Your task to perform on an android device: clear all cookies in the chrome app Image 0: 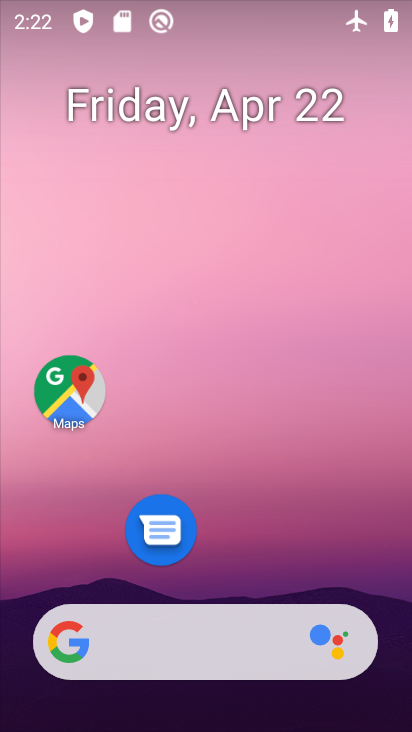
Step 0: drag from (262, 566) to (272, 8)
Your task to perform on an android device: clear all cookies in the chrome app Image 1: 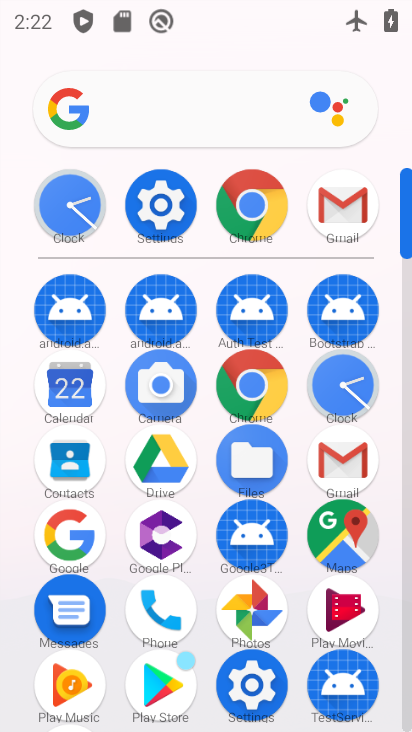
Step 1: click (259, 210)
Your task to perform on an android device: clear all cookies in the chrome app Image 2: 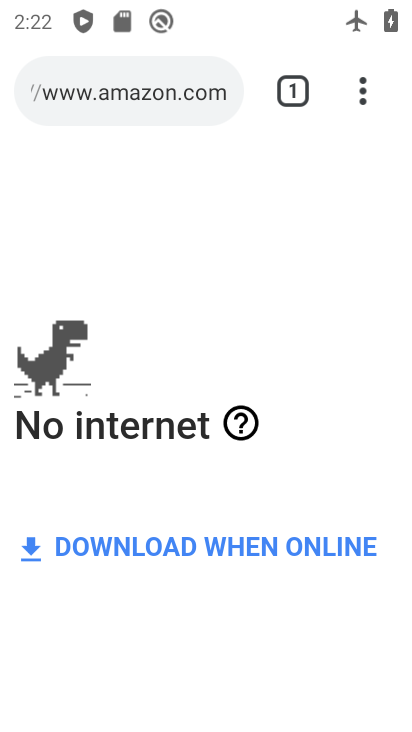
Step 2: click (360, 99)
Your task to perform on an android device: clear all cookies in the chrome app Image 3: 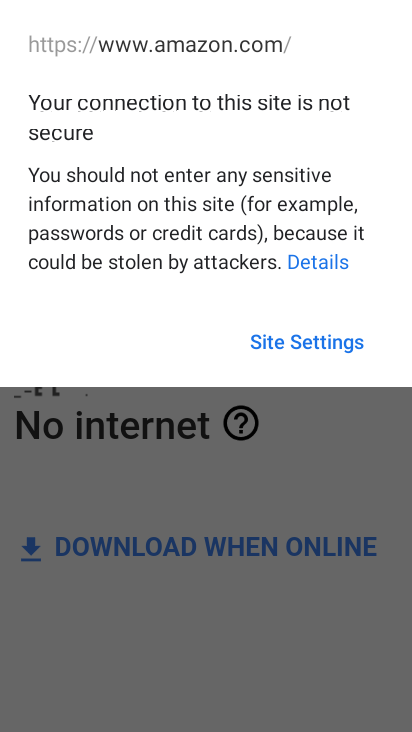
Step 3: click (355, 449)
Your task to perform on an android device: clear all cookies in the chrome app Image 4: 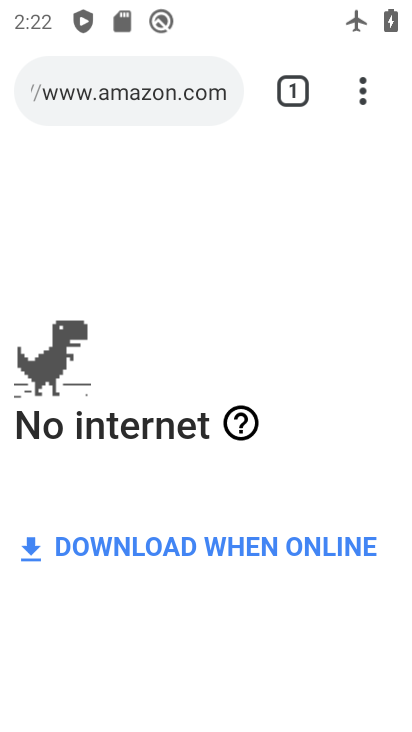
Step 4: click (360, 94)
Your task to perform on an android device: clear all cookies in the chrome app Image 5: 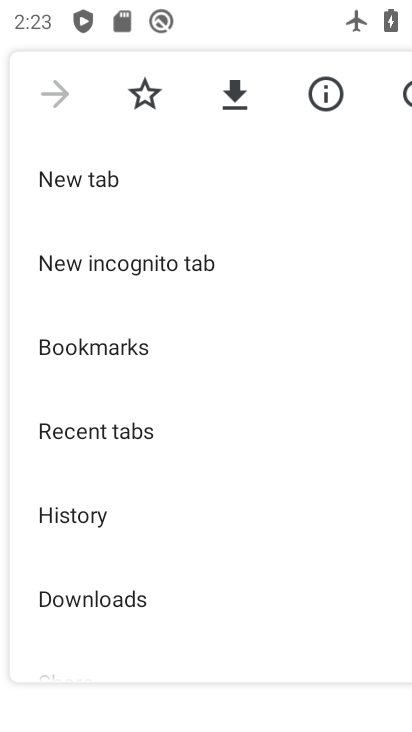
Step 5: drag from (164, 551) to (151, 351)
Your task to perform on an android device: clear all cookies in the chrome app Image 6: 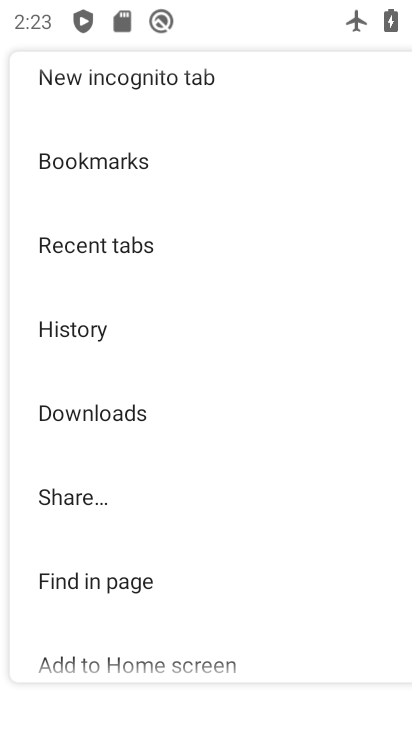
Step 6: drag from (117, 540) to (171, 206)
Your task to perform on an android device: clear all cookies in the chrome app Image 7: 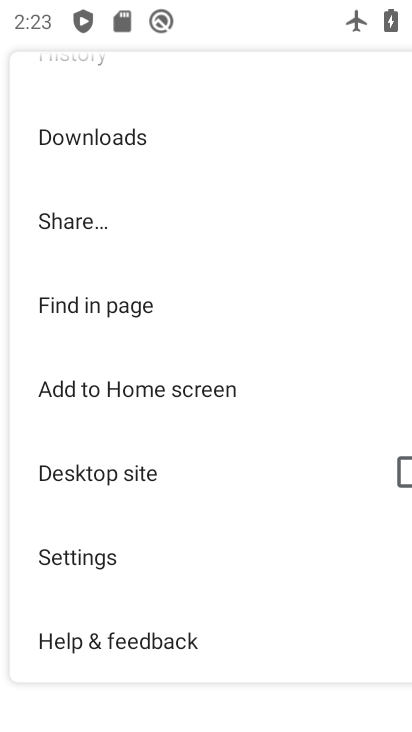
Step 7: click (69, 556)
Your task to perform on an android device: clear all cookies in the chrome app Image 8: 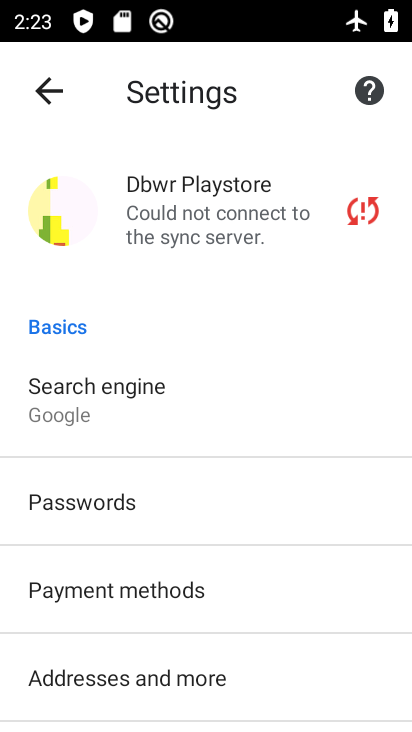
Step 8: drag from (188, 554) to (164, 234)
Your task to perform on an android device: clear all cookies in the chrome app Image 9: 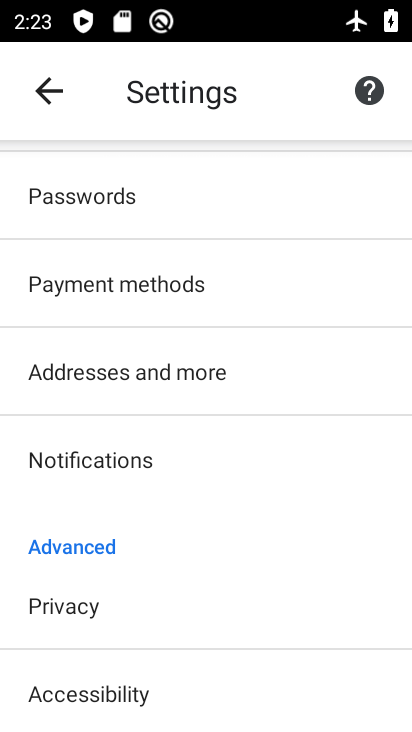
Step 9: click (71, 613)
Your task to perform on an android device: clear all cookies in the chrome app Image 10: 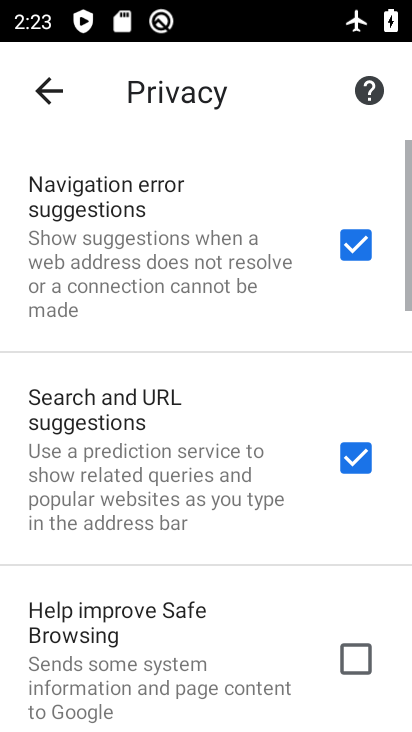
Step 10: drag from (200, 452) to (216, 140)
Your task to perform on an android device: clear all cookies in the chrome app Image 11: 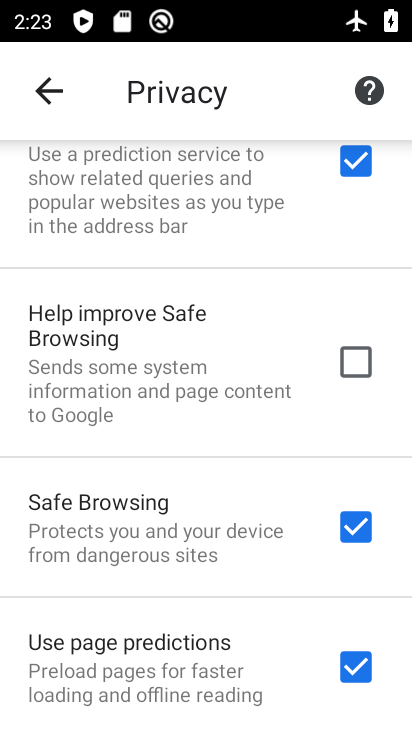
Step 11: drag from (230, 586) to (217, 164)
Your task to perform on an android device: clear all cookies in the chrome app Image 12: 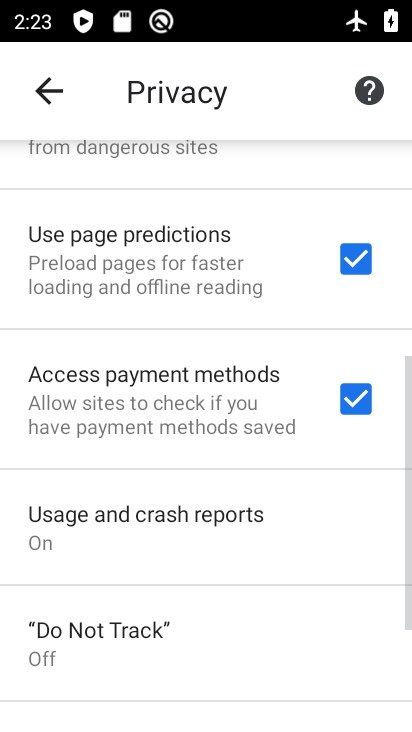
Step 12: drag from (171, 523) to (184, 244)
Your task to perform on an android device: clear all cookies in the chrome app Image 13: 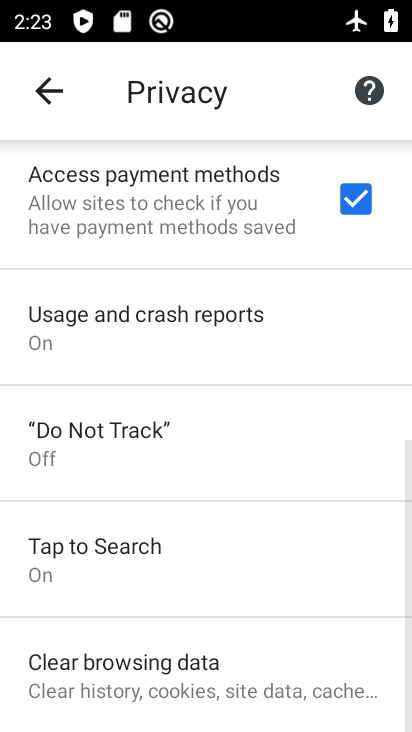
Step 13: drag from (159, 588) to (171, 264)
Your task to perform on an android device: clear all cookies in the chrome app Image 14: 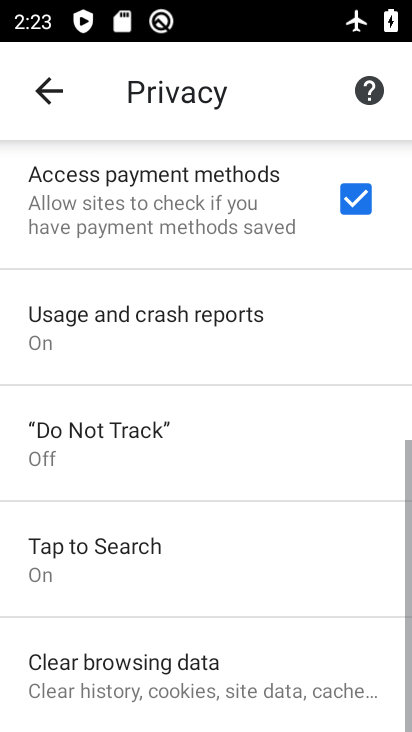
Step 14: click (119, 671)
Your task to perform on an android device: clear all cookies in the chrome app Image 15: 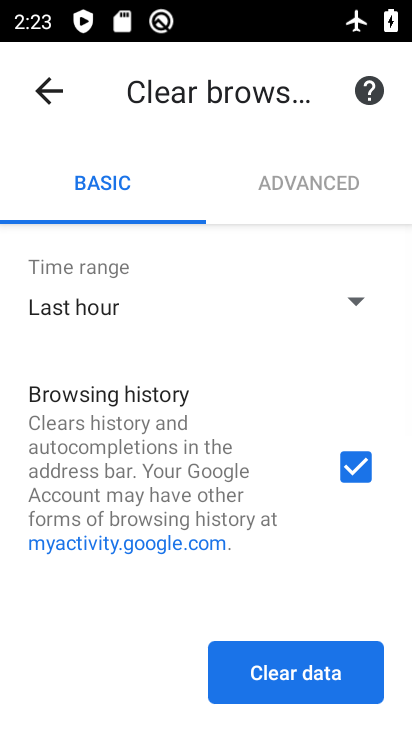
Step 15: click (358, 470)
Your task to perform on an android device: clear all cookies in the chrome app Image 16: 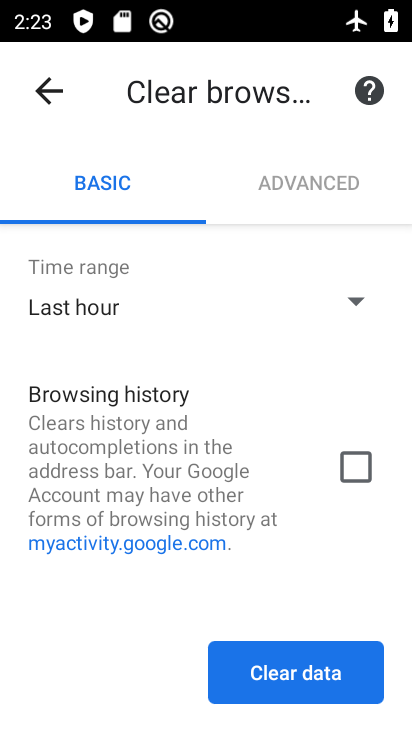
Step 16: drag from (252, 525) to (222, 211)
Your task to perform on an android device: clear all cookies in the chrome app Image 17: 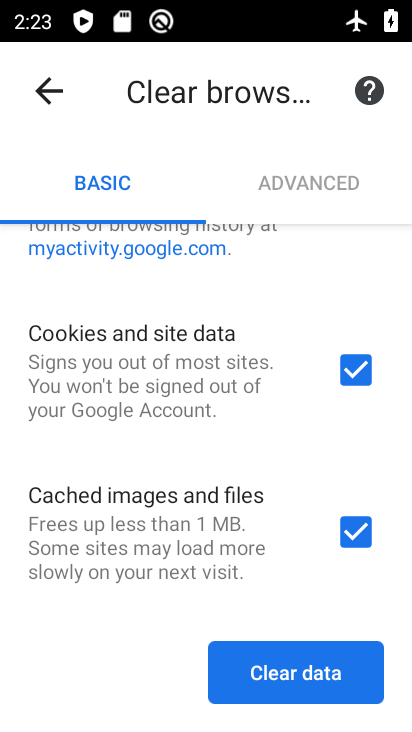
Step 17: click (357, 533)
Your task to perform on an android device: clear all cookies in the chrome app Image 18: 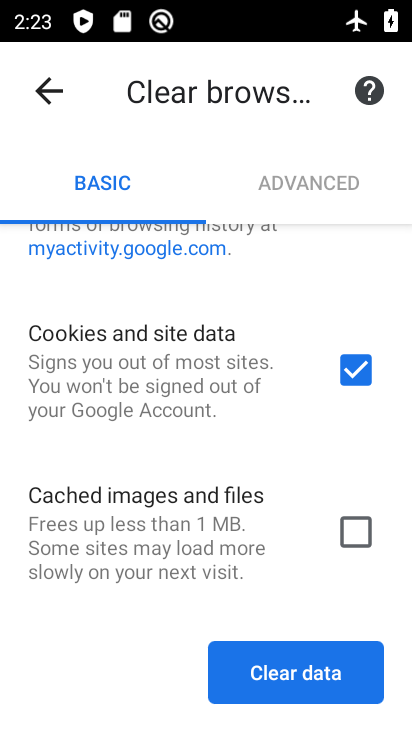
Step 18: click (298, 673)
Your task to perform on an android device: clear all cookies in the chrome app Image 19: 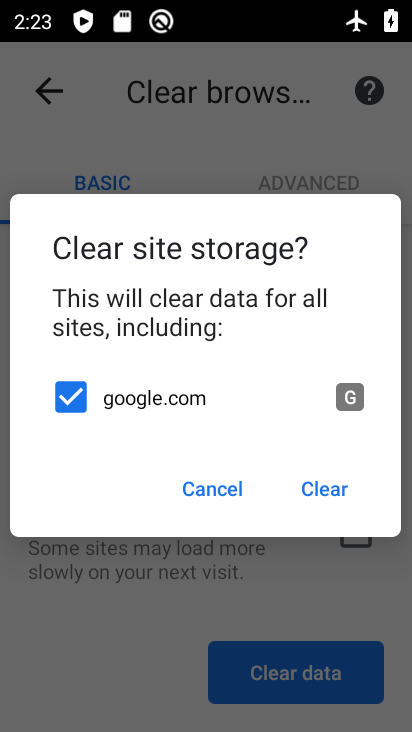
Step 19: click (329, 488)
Your task to perform on an android device: clear all cookies in the chrome app Image 20: 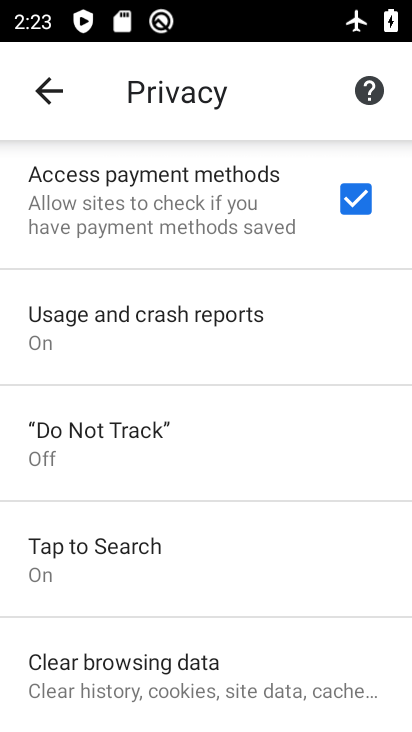
Step 20: task complete